Your task to perform on an android device: Open battery settings Image 0: 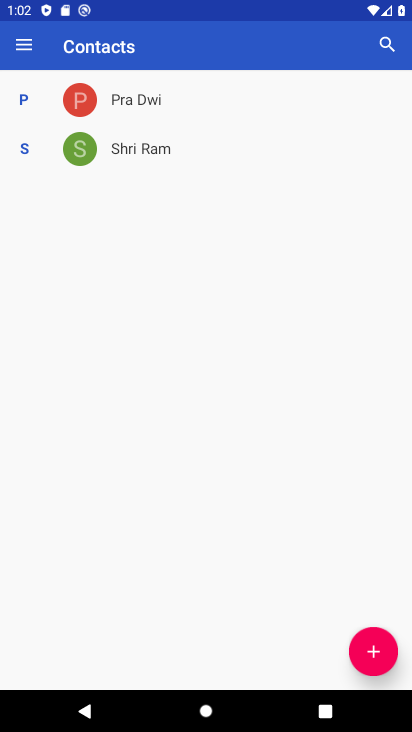
Step 0: press home button
Your task to perform on an android device: Open battery settings Image 1: 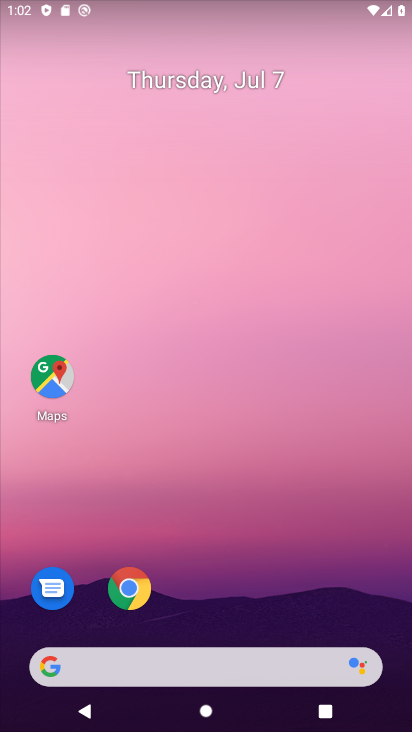
Step 1: drag from (261, 568) to (259, 502)
Your task to perform on an android device: Open battery settings Image 2: 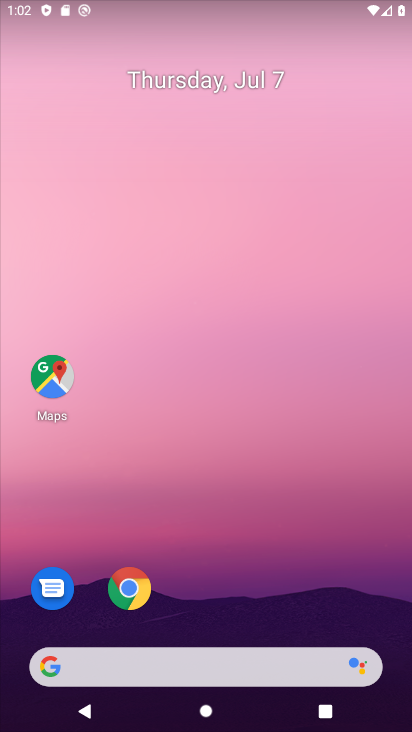
Step 2: drag from (260, 564) to (233, 279)
Your task to perform on an android device: Open battery settings Image 3: 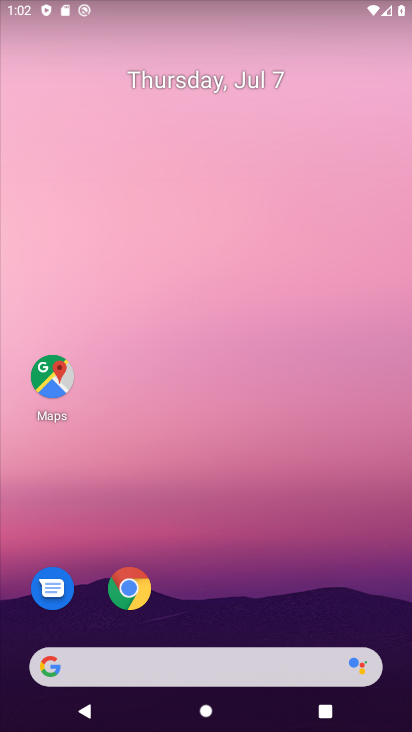
Step 3: drag from (283, 531) to (271, 180)
Your task to perform on an android device: Open battery settings Image 4: 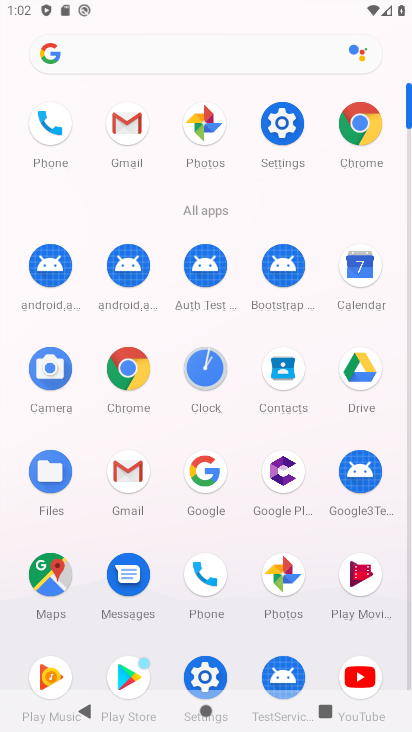
Step 4: click (279, 134)
Your task to perform on an android device: Open battery settings Image 5: 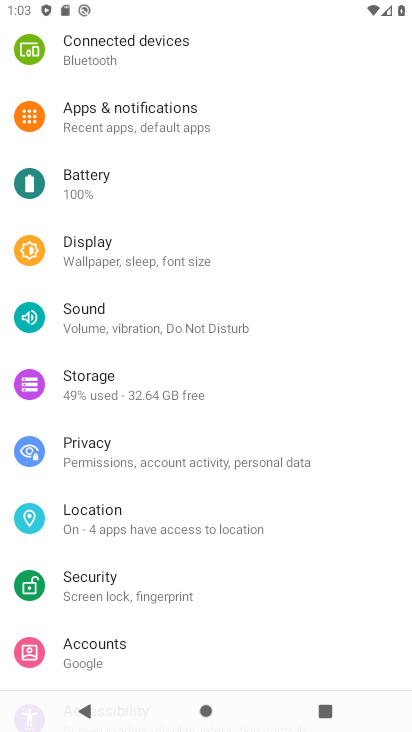
Step 5: click (105, 182)
Your task to perform on an android device: Open battery settings Image 6: 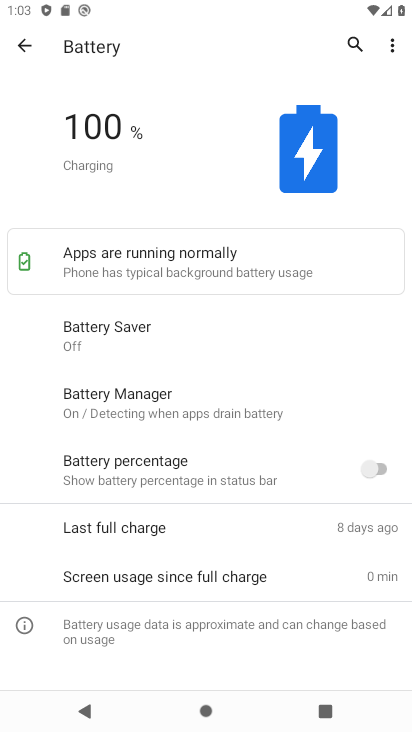
Step 6: task complete